Your task to perform on an android device: change the upload size in google photos Image 0: 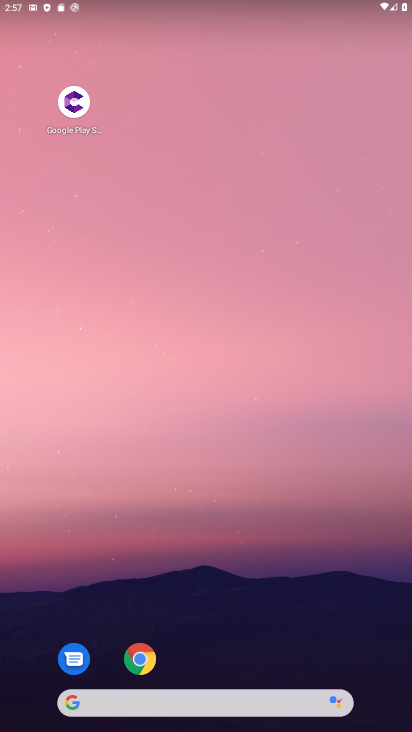
Step 0: drag from (242, 684) to (258, 169)
Your task to perform on an android device: change the upload size in google photos Image 1: 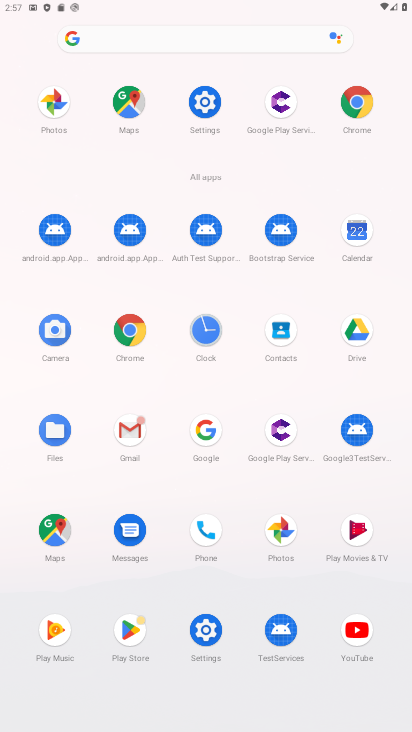
Step 1: click (280, 529)
Your task to perform on an android device: change the upload size in google photos Image 2: 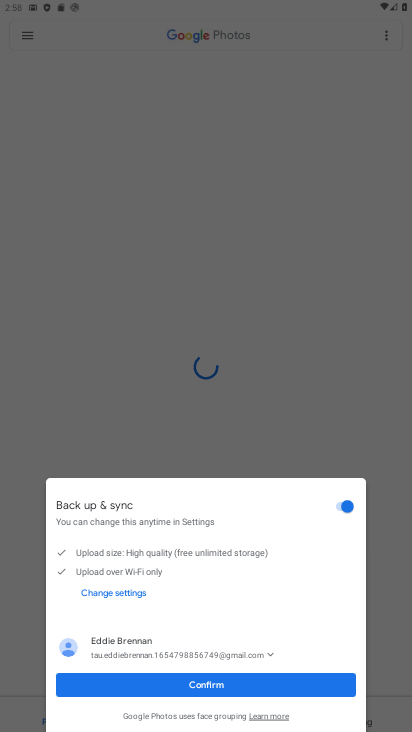
Step 2: click (207, 684)
Your task to perform on an android device: change the upload size in google photos Image 3: 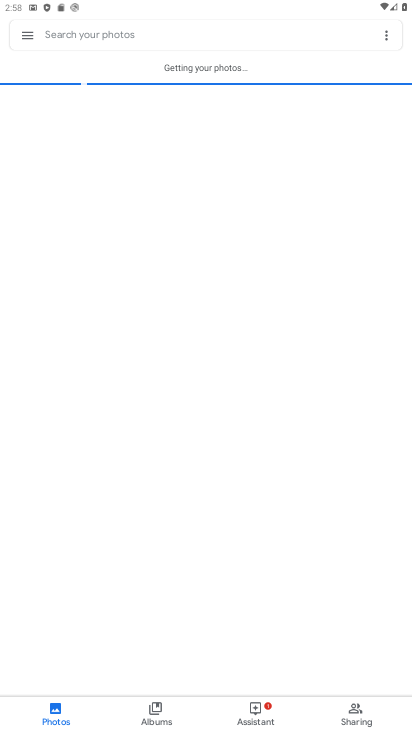
Step 3: click (24, 25)
Your task to perform on an android device: change the upload size in google photos Image 4: 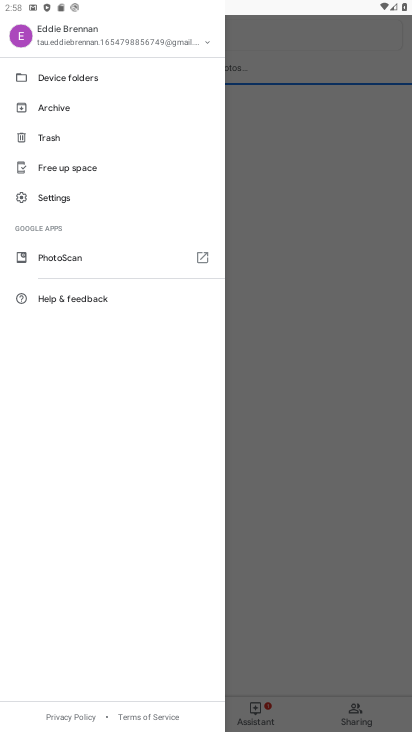
Step 4: click (77, 211)
Your task to perform on an android device: change the upload size in google photos Image 5: 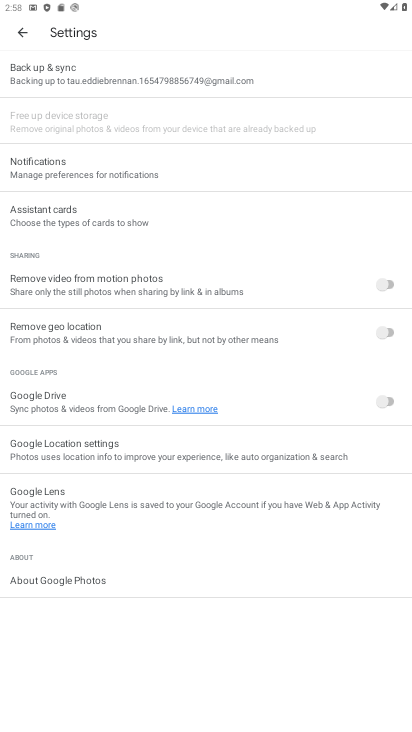
Step 5: click (182, 86)
Your task to perform on an android device: change the upload size in google photos Image 6: 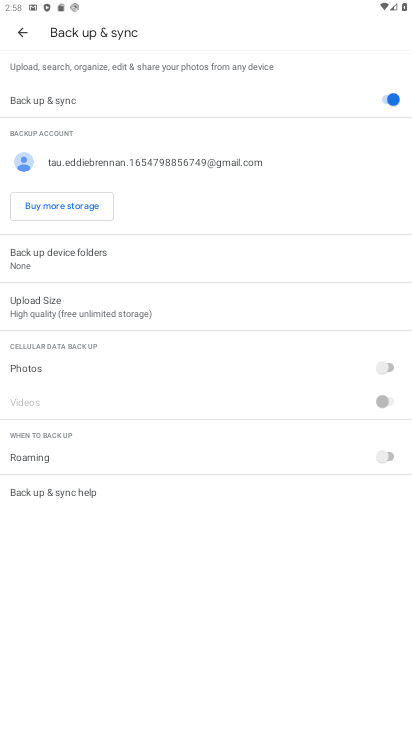
Step 6: click (146, 297)
Your task to perform on an android device: change the upload size in google photos Image 7: 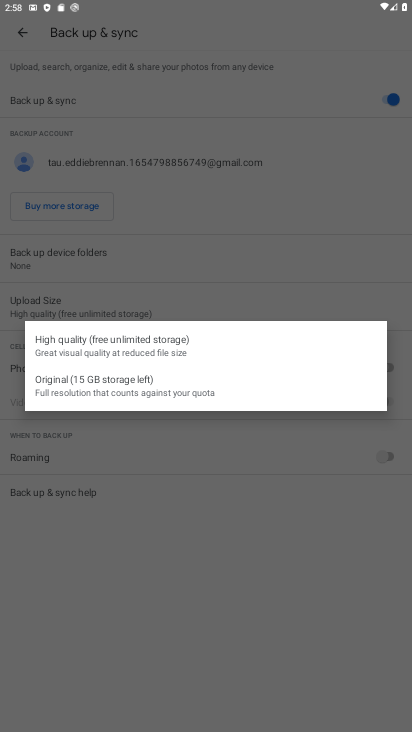
Step 7: click (168, 397)
Your task to perform on an android device: change the upload size in google photos Image 8: 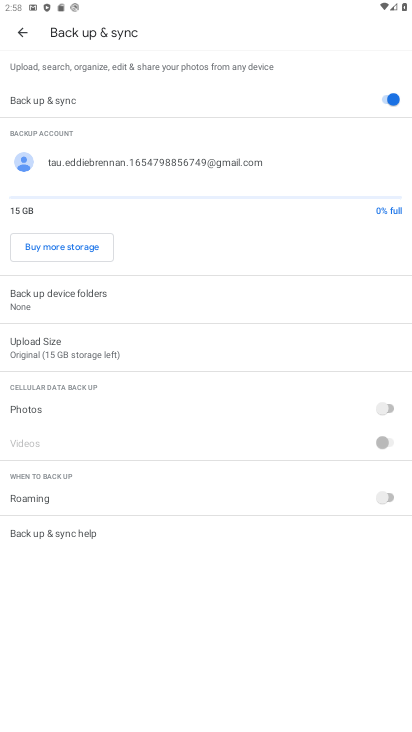
Step 8: task complete